Your task to perform on an android device: Open Google Chrome and open the bookmarks view Image 0: 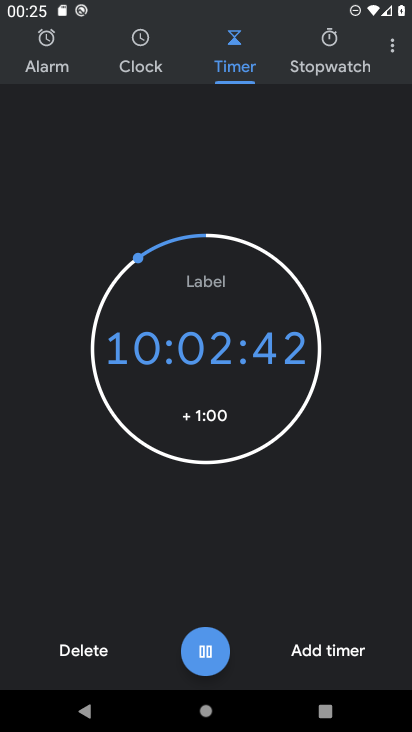
Step 0: press home button
Your task to perform on an android device: Open Google Chrome and open the bookmarks view Image 1: 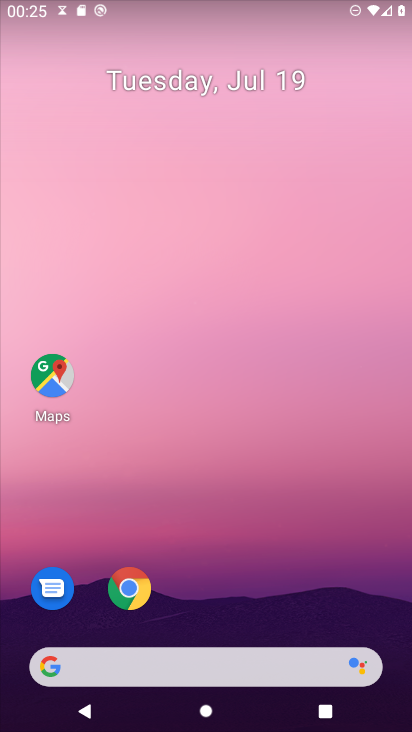
Step 1: click (134, 593)
Your task to perform on an android device: Open Google Chrome and open the bookmarks view Image 2: 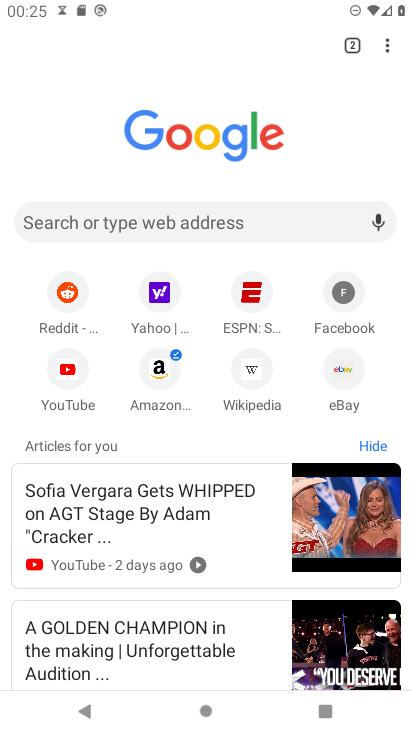
Step 2: click (391, 41)
Your task to perform on an android device: Open Google Chrome and open the bookmarks view Image 3: 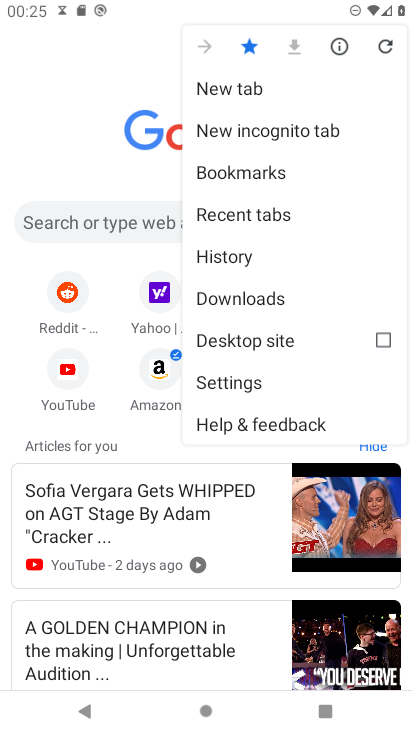
Step 3: click (250, 179)
Your task to perform on an android device: Open Google Chrome and open the bookmarks view Image 4: 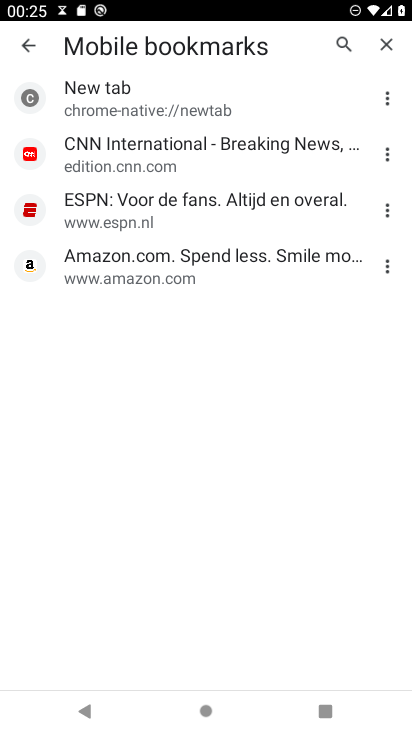
Step 4: task complete